Your task to perform on an android device: open app "Firefox Browser" Image 0: 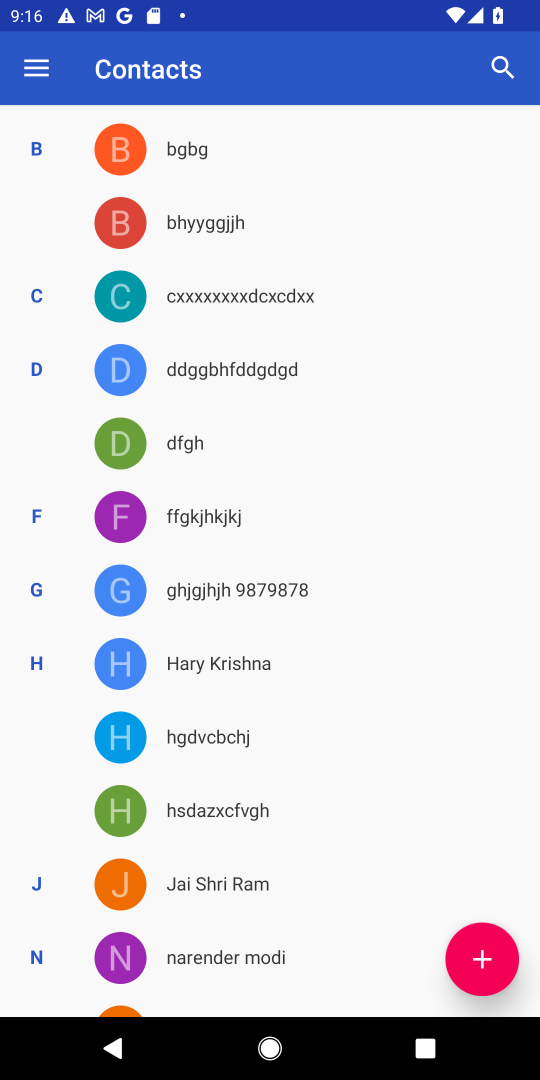
Step 0: press home button
Your task to perform on an android device: open app "Firefox Browser" Image 1: 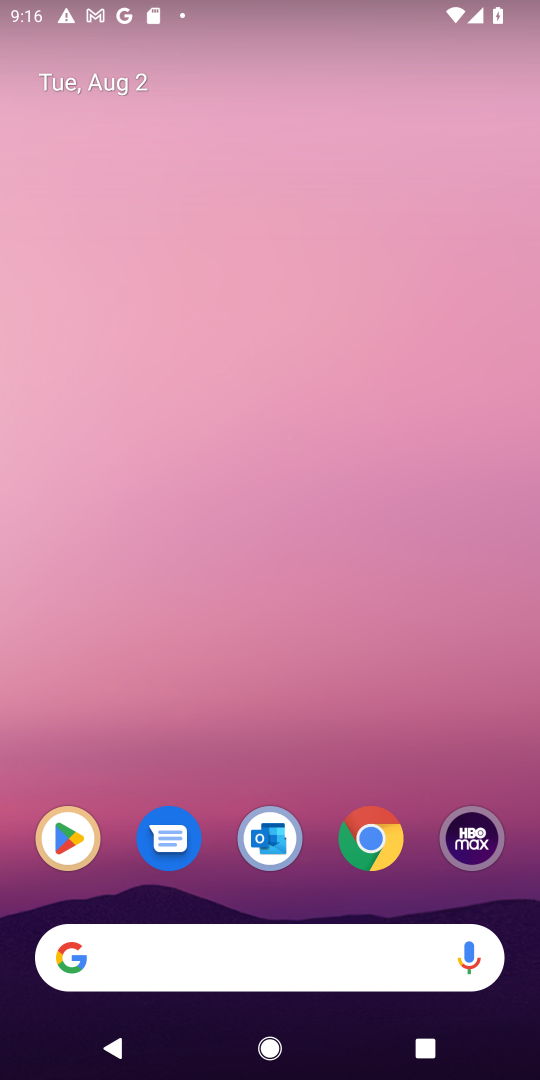
Step 1: drag from (292, 792) to (329, 85)
Your task to perform on an android device: open app "Firefox Browser" Image 2: 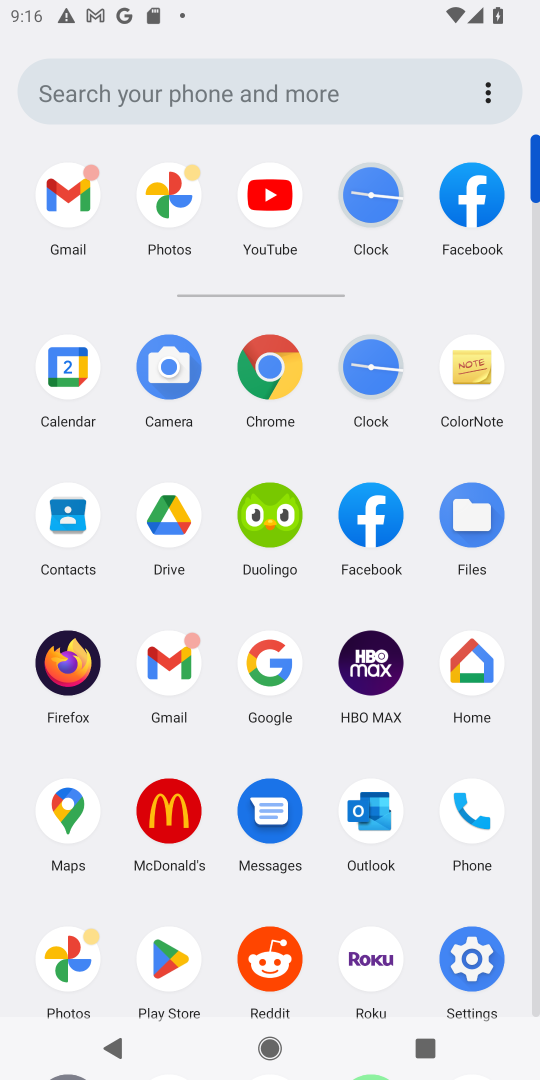
Step 2: click (176, 952)
Your task to perform on an android device: open app "Firefox Browser" Image 3: 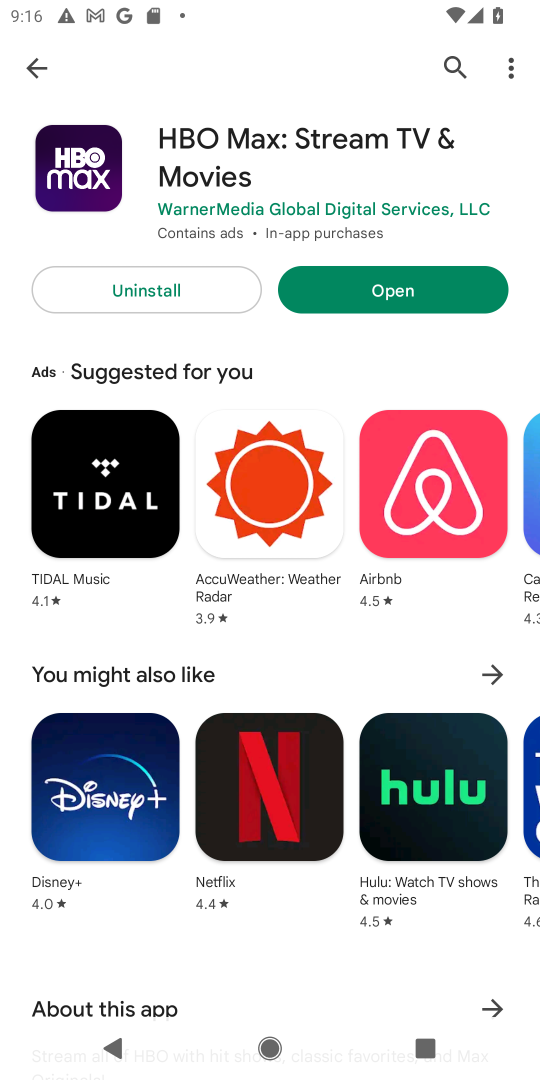
Step 3: click (451, 65)
Your task to perform on an android device: open app "Firefox Browser" Image 4: 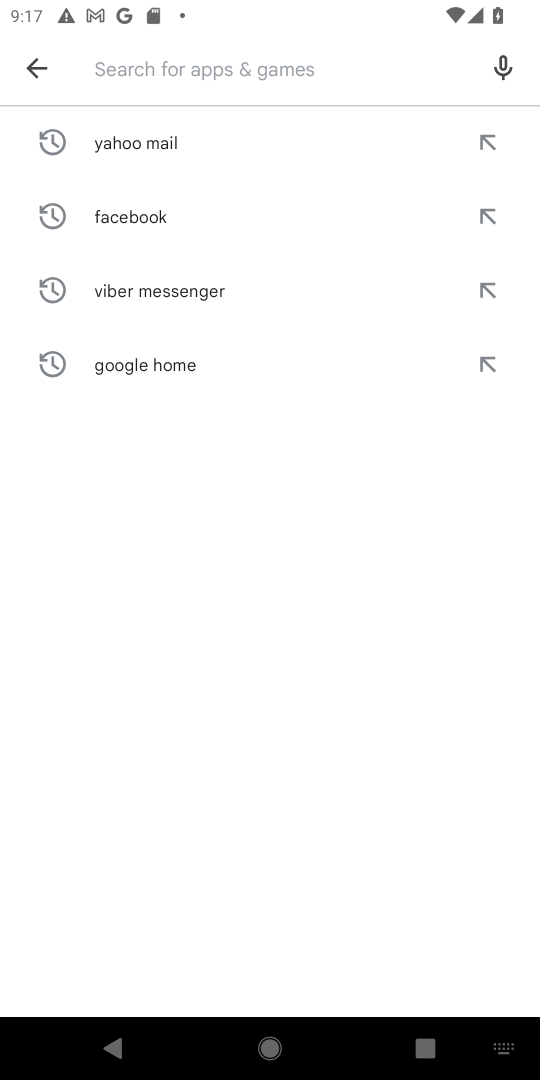
Step 4: type "firfox browser"
Your task to perform on an android device: open app "Firefox Browser" Image 5: 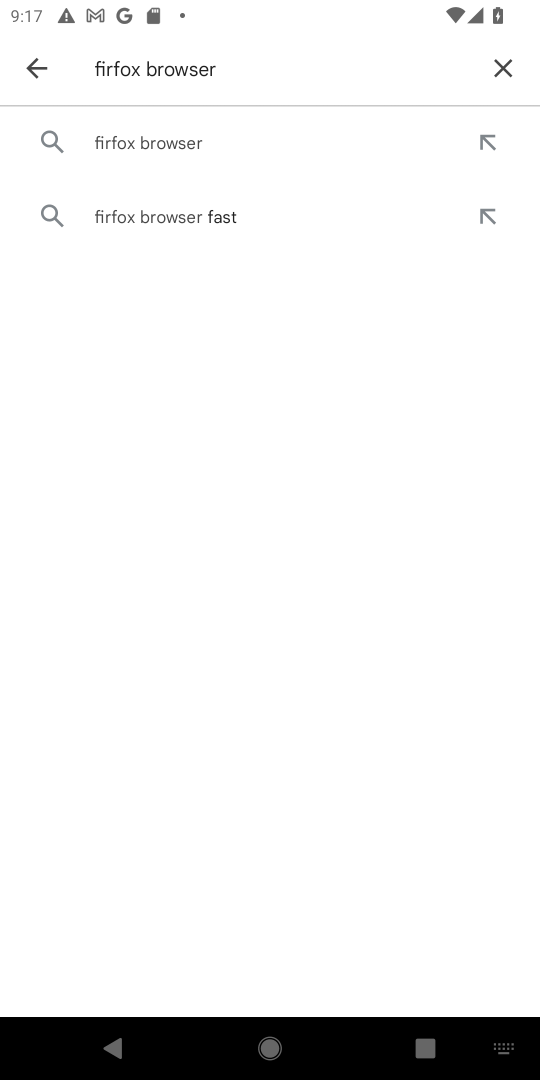
Step 5: click (170, 149)
Your task to perform on an android device: open app "Firefox Browser" Image 6: 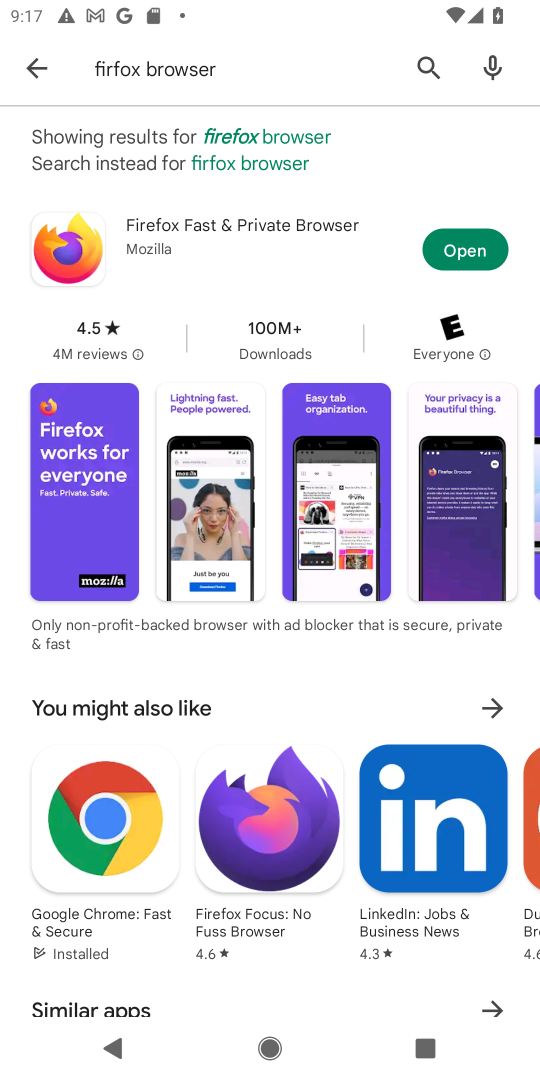
Step 6: click (451, 245)
Your task to perform on an android device: open app "Firefox Browser" Image 7: 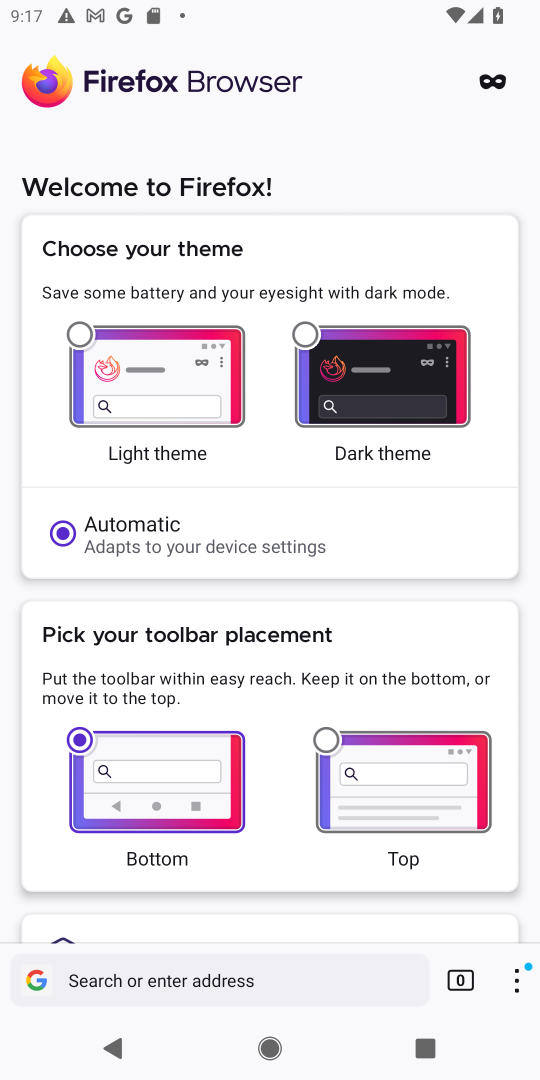
Step 7: task complete